Your task to perform on an android device: Open notification settings Image 0: 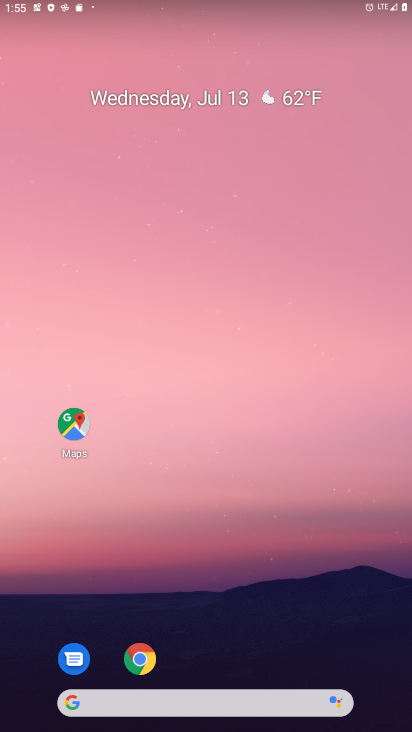
Step 0: drag from (244, 704) to (294, 2)
Your task to perform on an android device: Open notification settings Image 1: 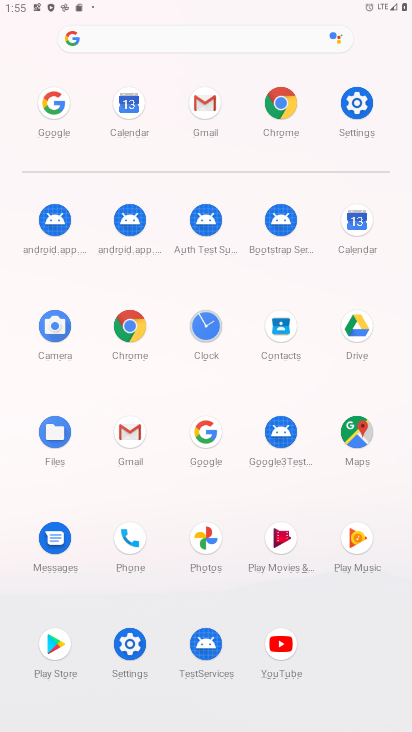
Step 1: click (356, 98)
Your task to perform on an android device: Open notification settings Image 2: 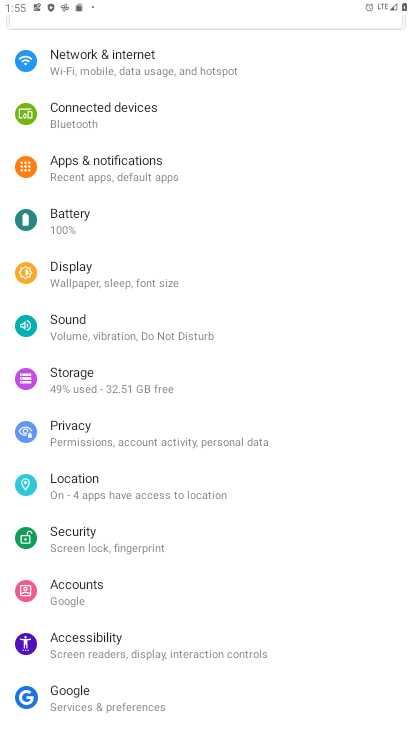
Step 2: click (136, 161)
Your task to perform on an android device: Open notification settings Image 3: 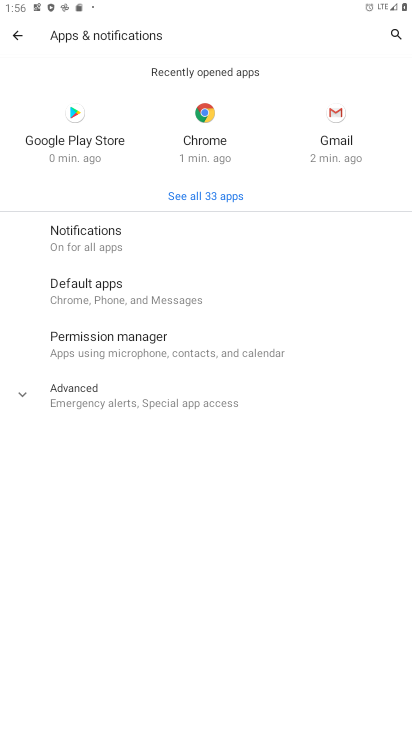
Step 3: click (87, 234)
Your task to perform on an android device: Open notification settings Image 4: 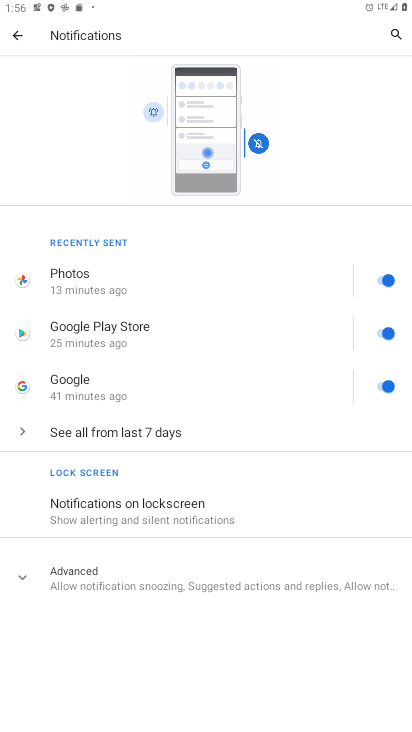
Step 4: task complete